Your task to perform on an android device: Search for sushi restaurants on Maps Image 0: 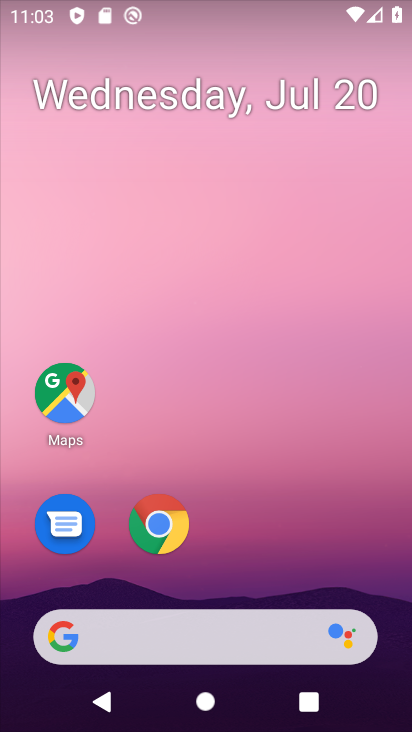
Step 0: click (61, 396)
Your task to perform on an android device: Search for sushi restaurants on Maps Image 1: 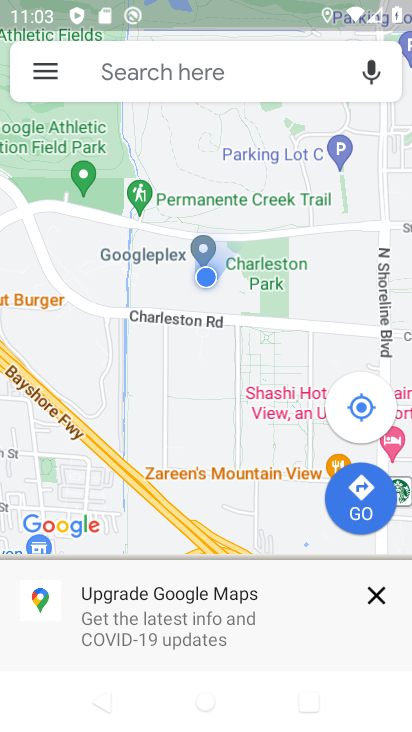
Step 1: click (173, 71)
Your task to perform on an android device: Search for sushi restaurants on Maps Image 2: 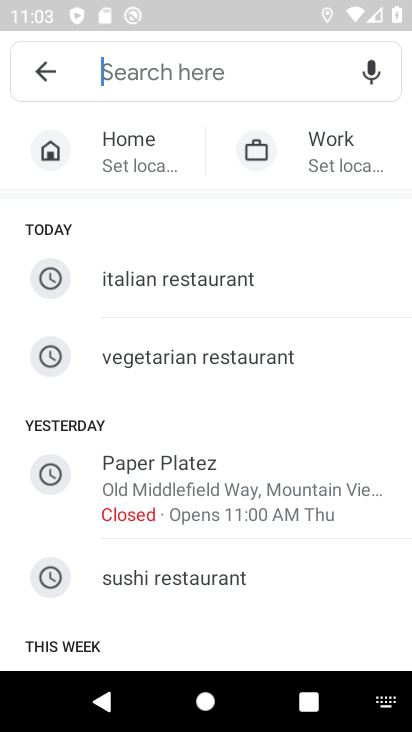
Step 2: click (208, 578)
Your task to perform on an android device: Search for sushi restaurants on Maps Image 3: 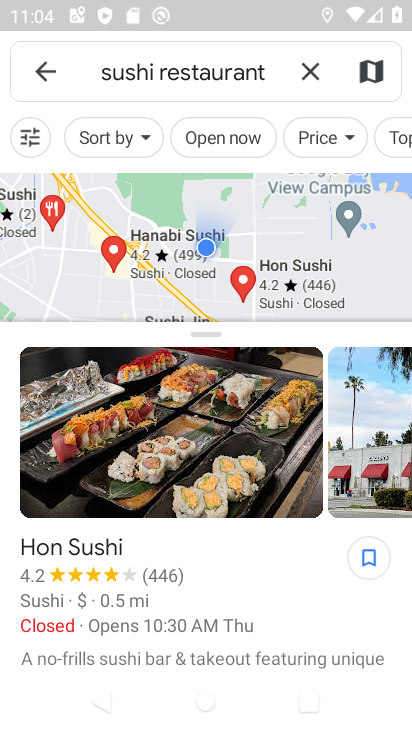
Step 3: task complete